Your task to perform on an android device: toggle sleep mode Image 0: 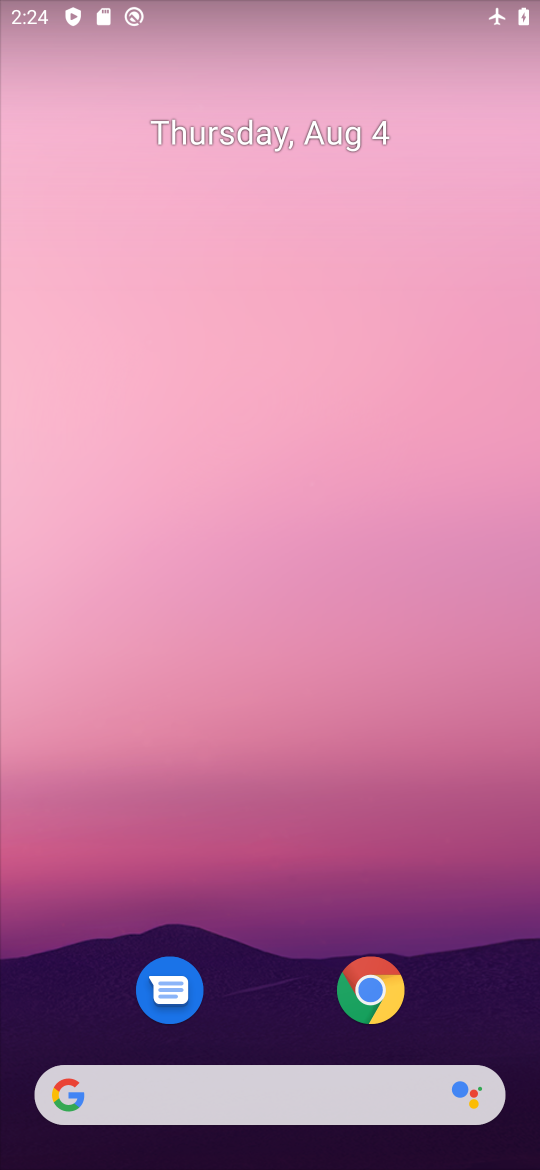
Step 0: drag from (272, 1047) to (269, 283)
Your task to perform on an android device: toggle sleep mode Image 1: 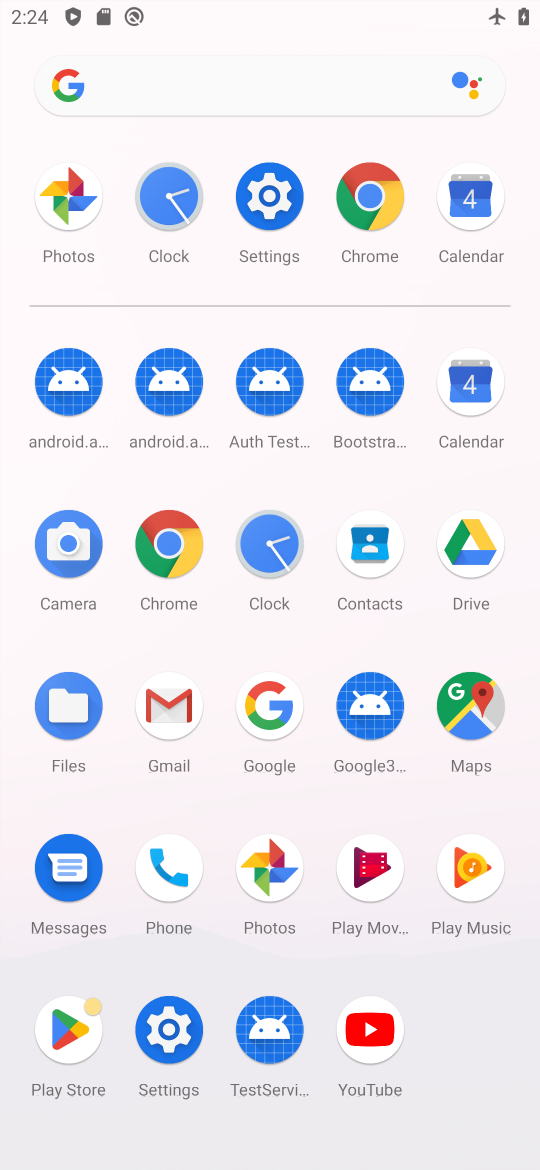
Step 1: click (257, 236)
Your task to perform on an android device: toggle sleep mode Image 2: 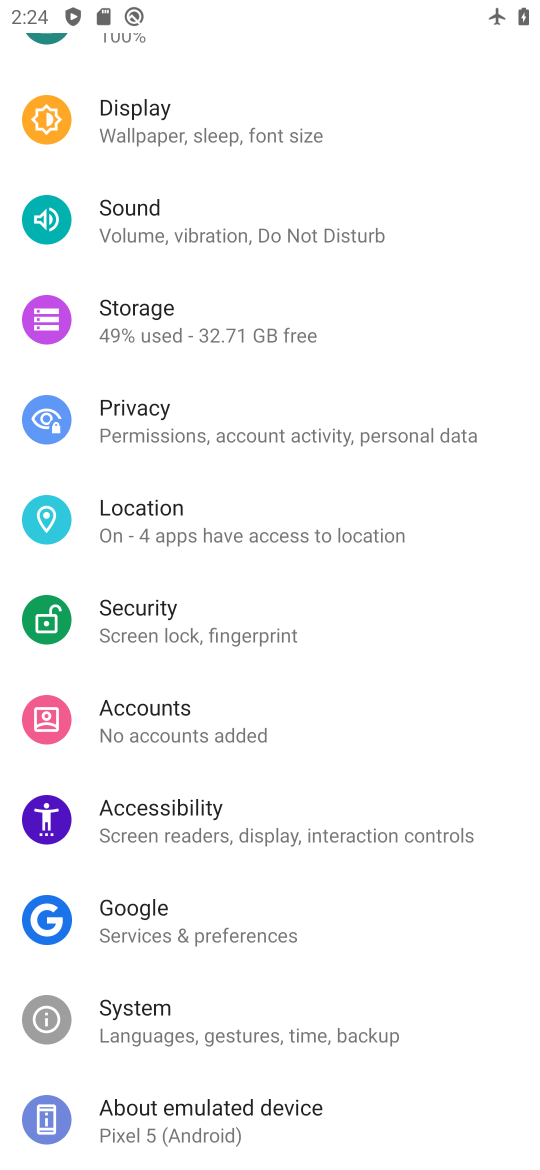
Step 2: click (312, 146)
Your task to perform on an android device: toggle sleep mode Image 3: 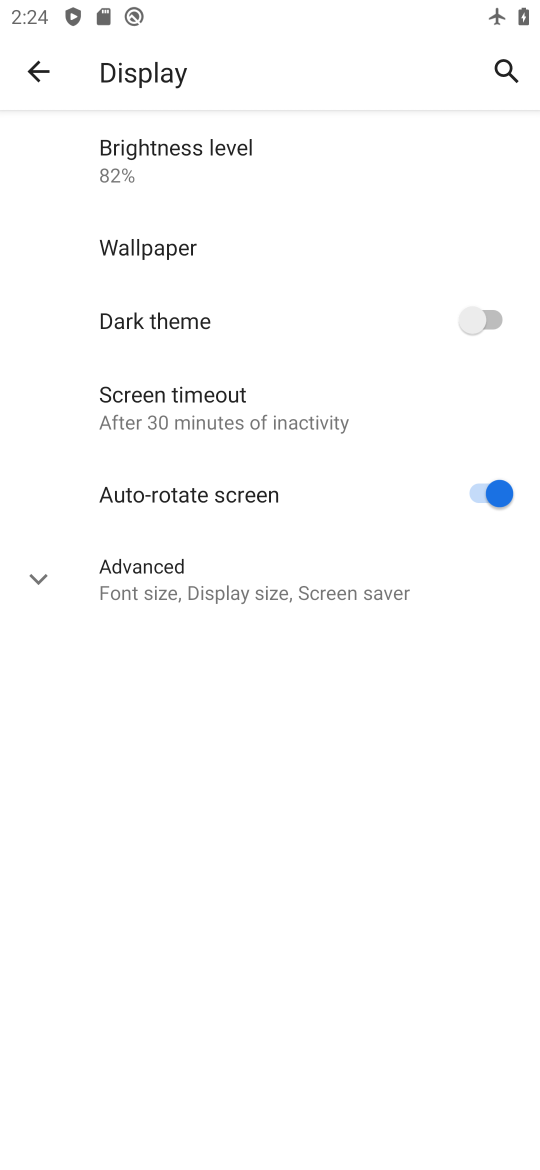
Step 3: click (298, 402)
Your task to perform on an android device: toggle sleep mode Image 4: 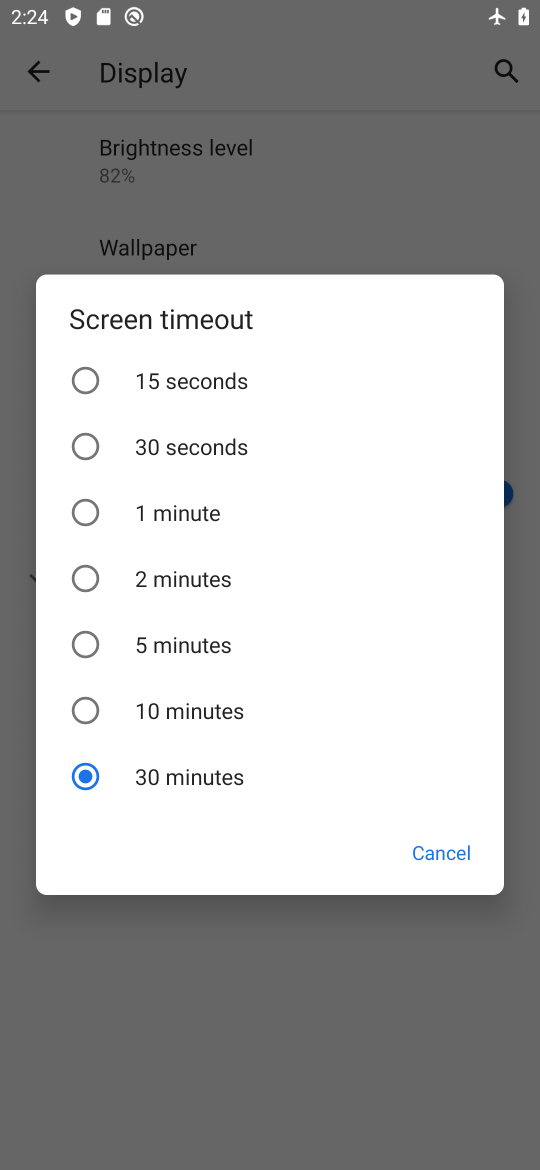
Step 4: click (227, 390)
Your task to perform on an android device: toggle sleep mode Image 5: 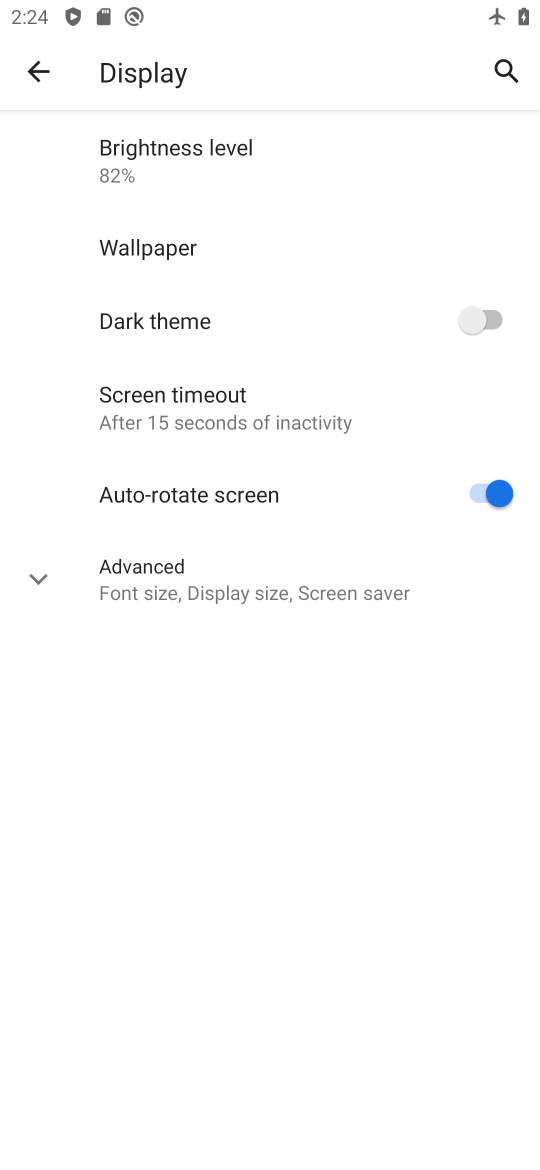
Step 5: task complete